Your task to perform on an android device: install app "Instagram" Image 0: 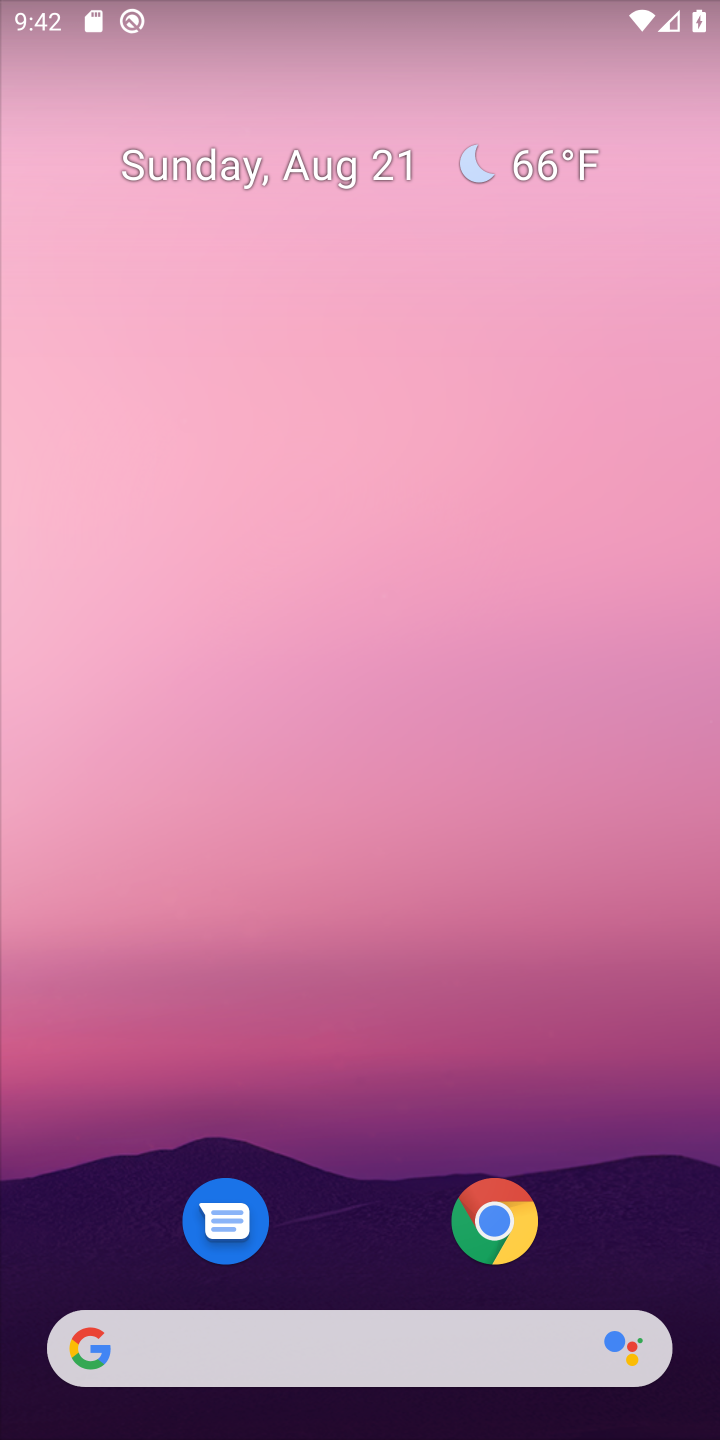
Step 0: drag from (339, 1155) to (283, 368)
Your task to perform on an android device: install app "Instagram" Image 1: 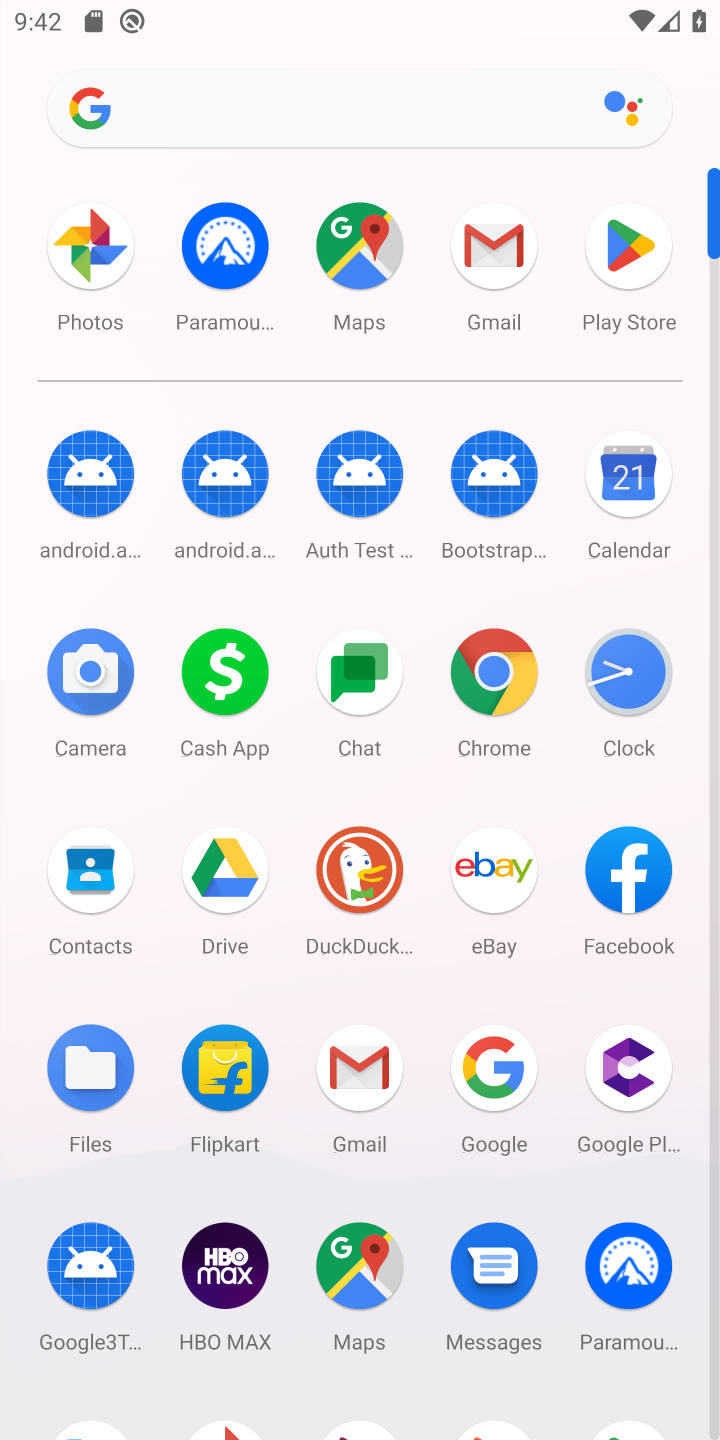
Step 1: click (609, 225)
Your task to perform on an android device: install app "Instagram" Image 2: 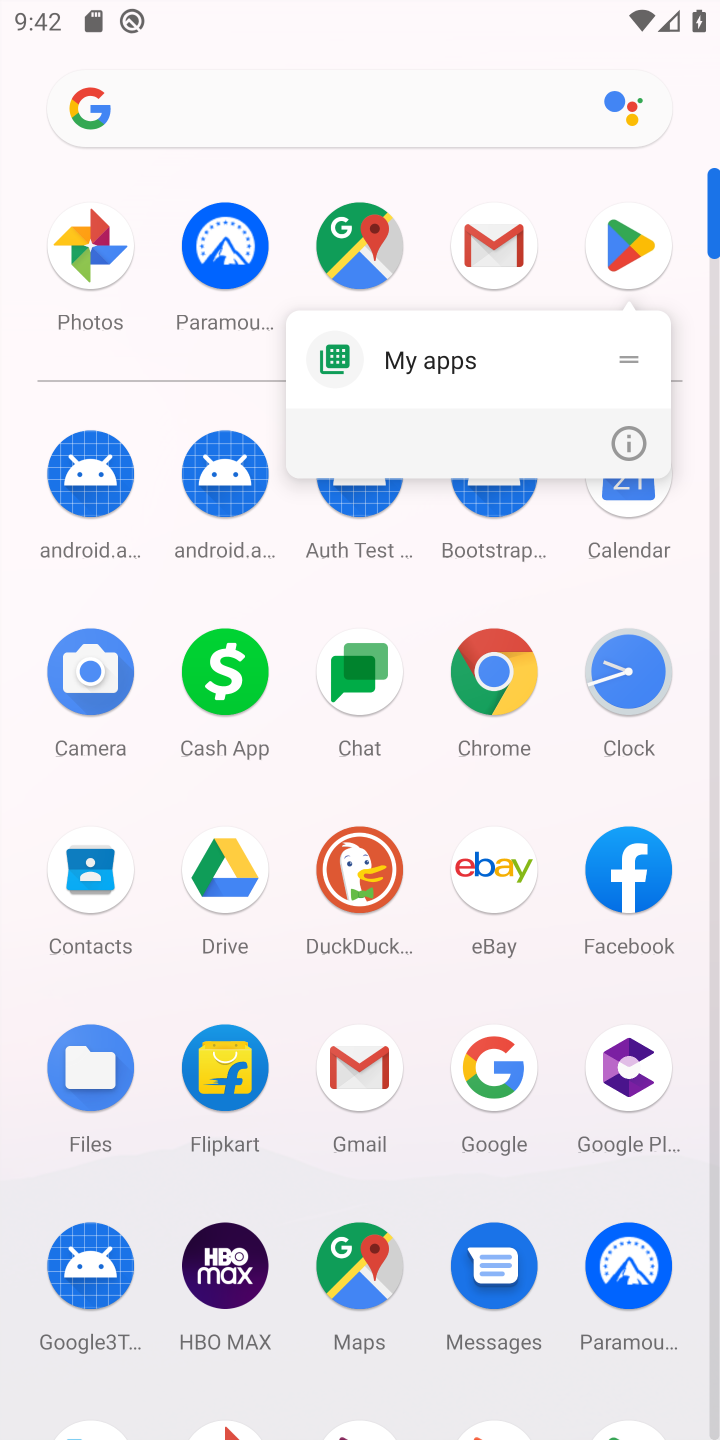
Step 2: click (609, 225)
Your task to perform on an android device: install app "Instagram" Image 3: 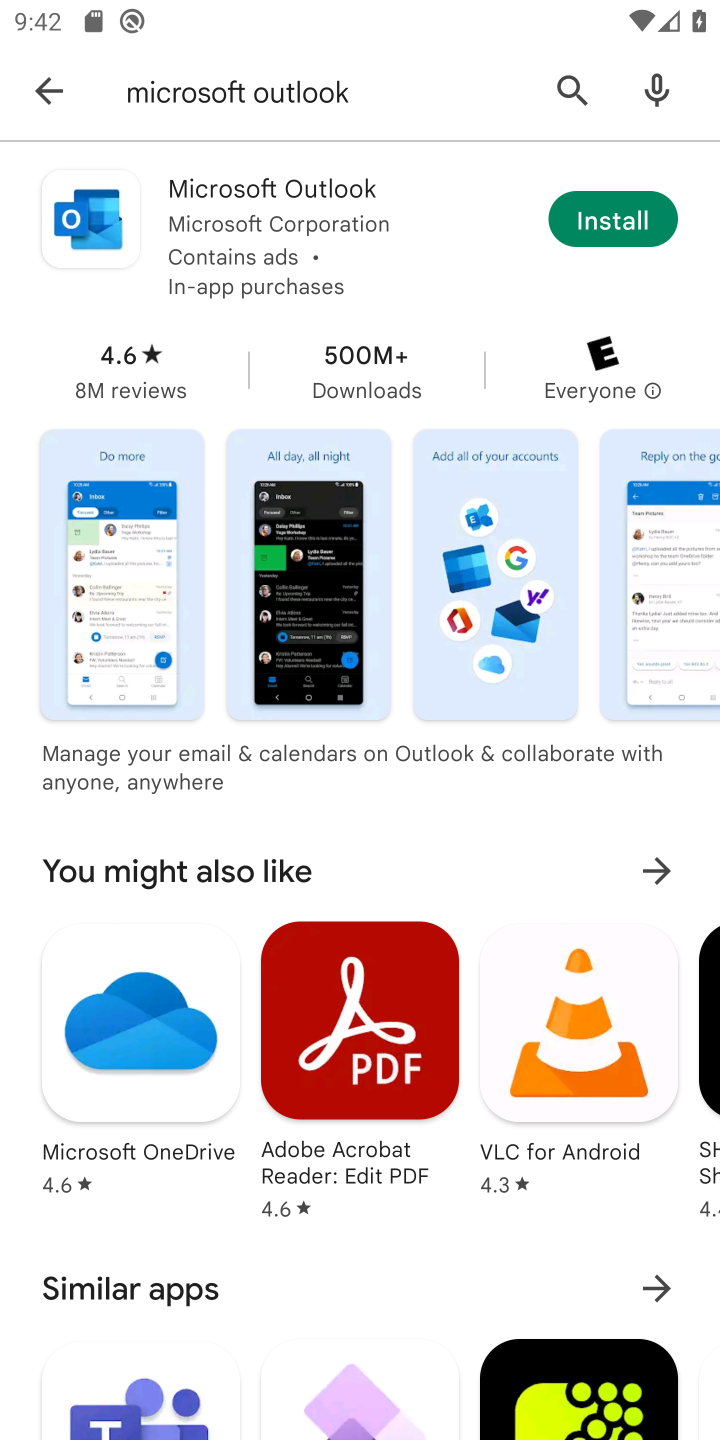
Step 3: click (562, 84)
Your task to perform on an android device: install app "Instagram" Image 4: 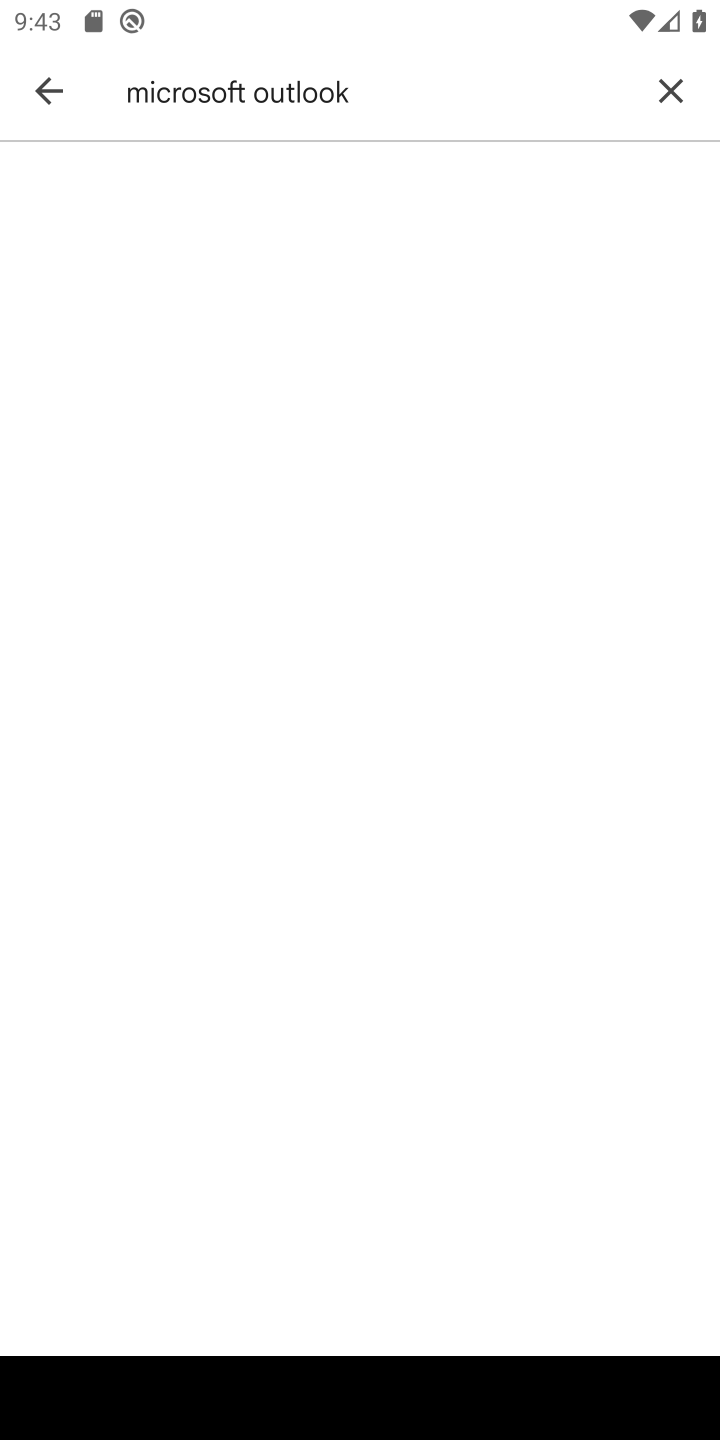
Step 4: click (660, 92)
Your task to perform on an android device: install app "Instagram" Image 5: 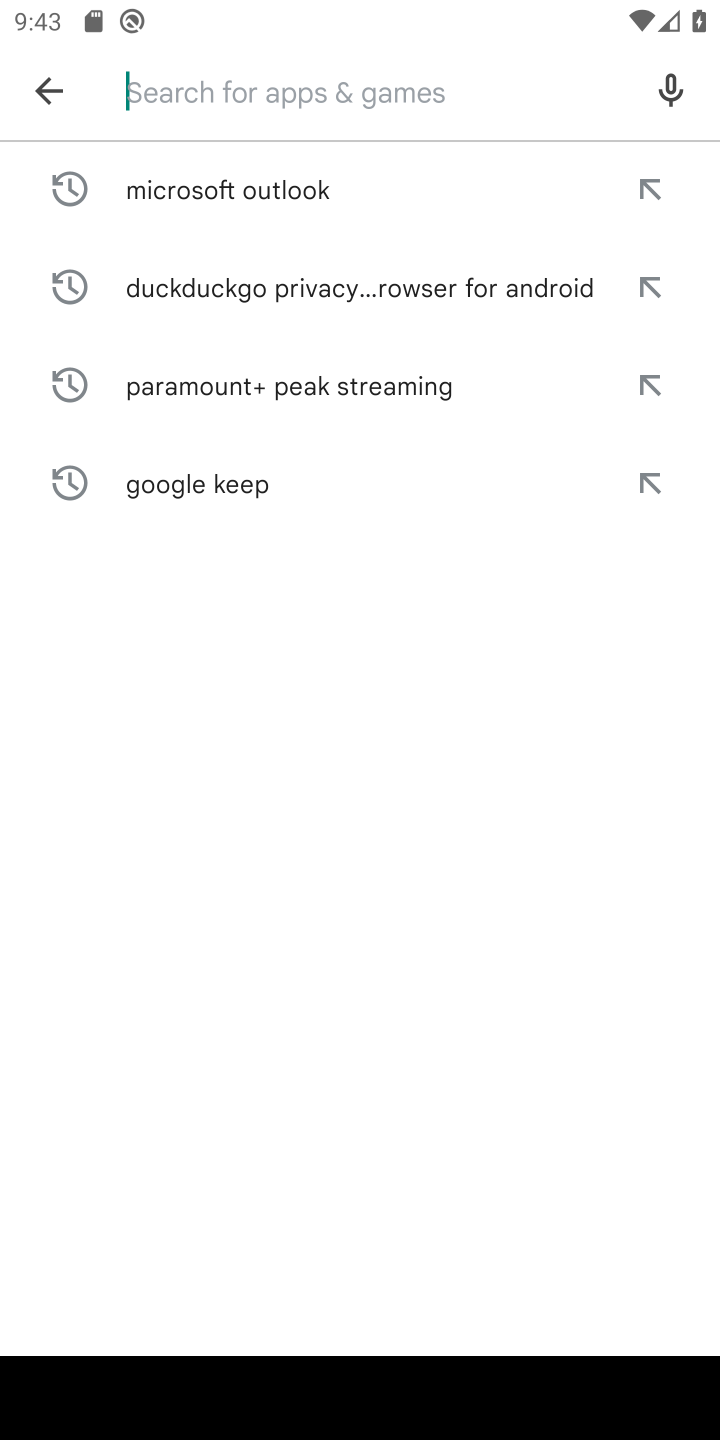
Step 5: type "Instagram"
Your task to perform on an android device: install app "Instagram" Image 6: 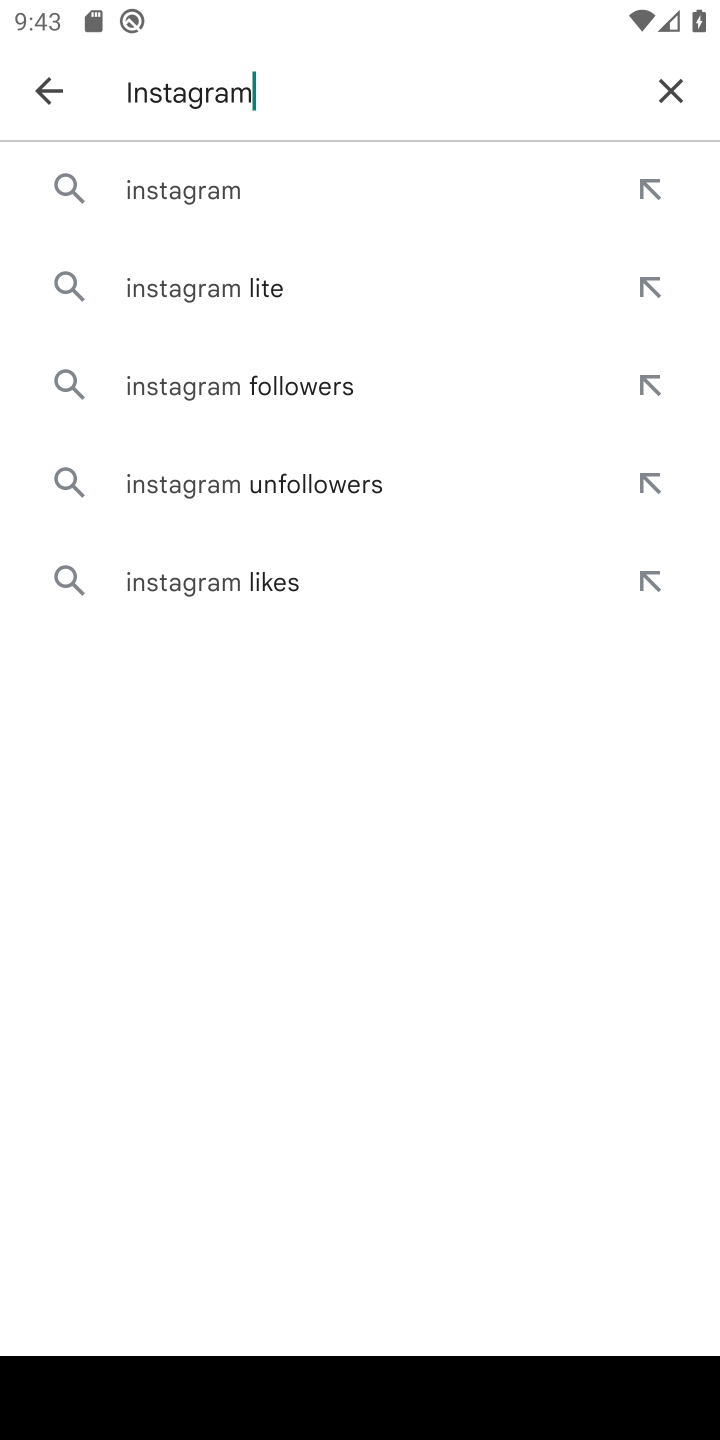
Step 6: type ""
Your task to perform on an android device: install app "Instagram" Image 7: 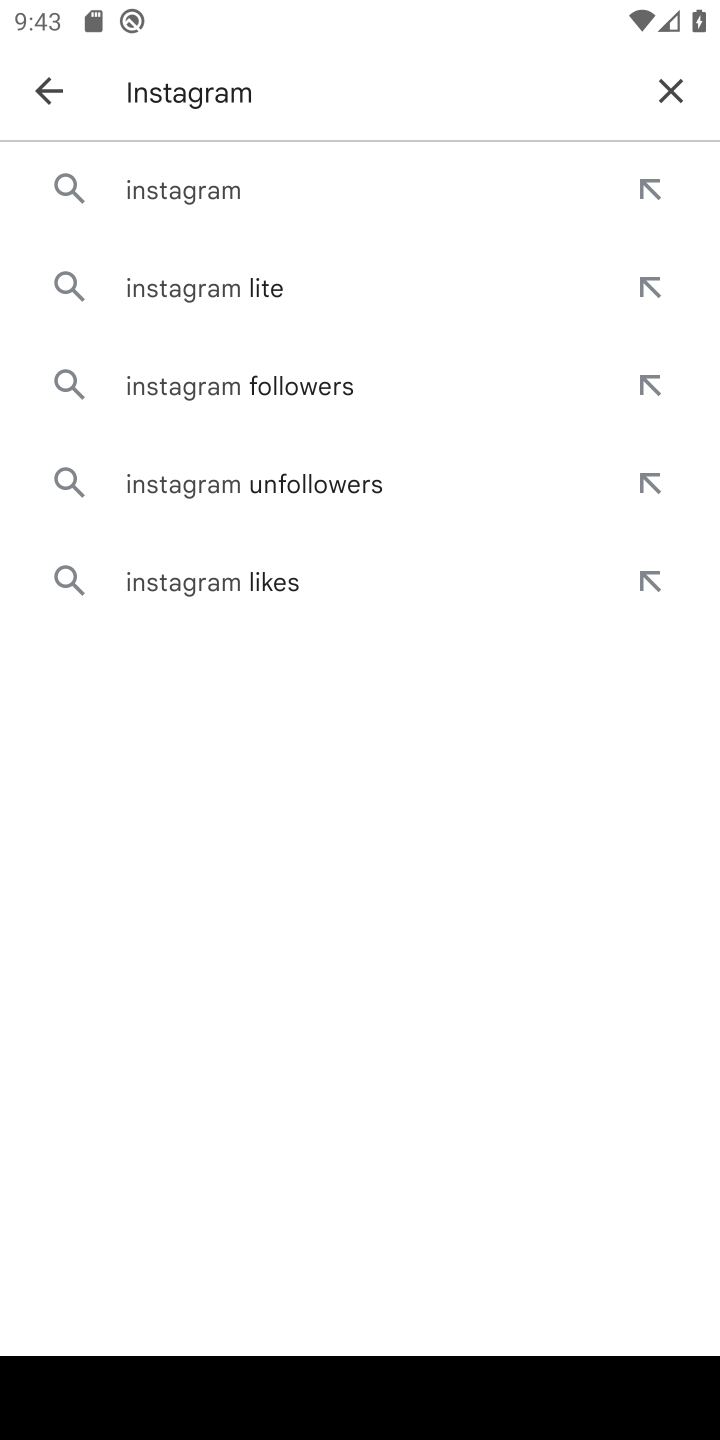
Step 7: click (172, 192)
Your task to perform on an android device: install app "Instagram" Image 8: 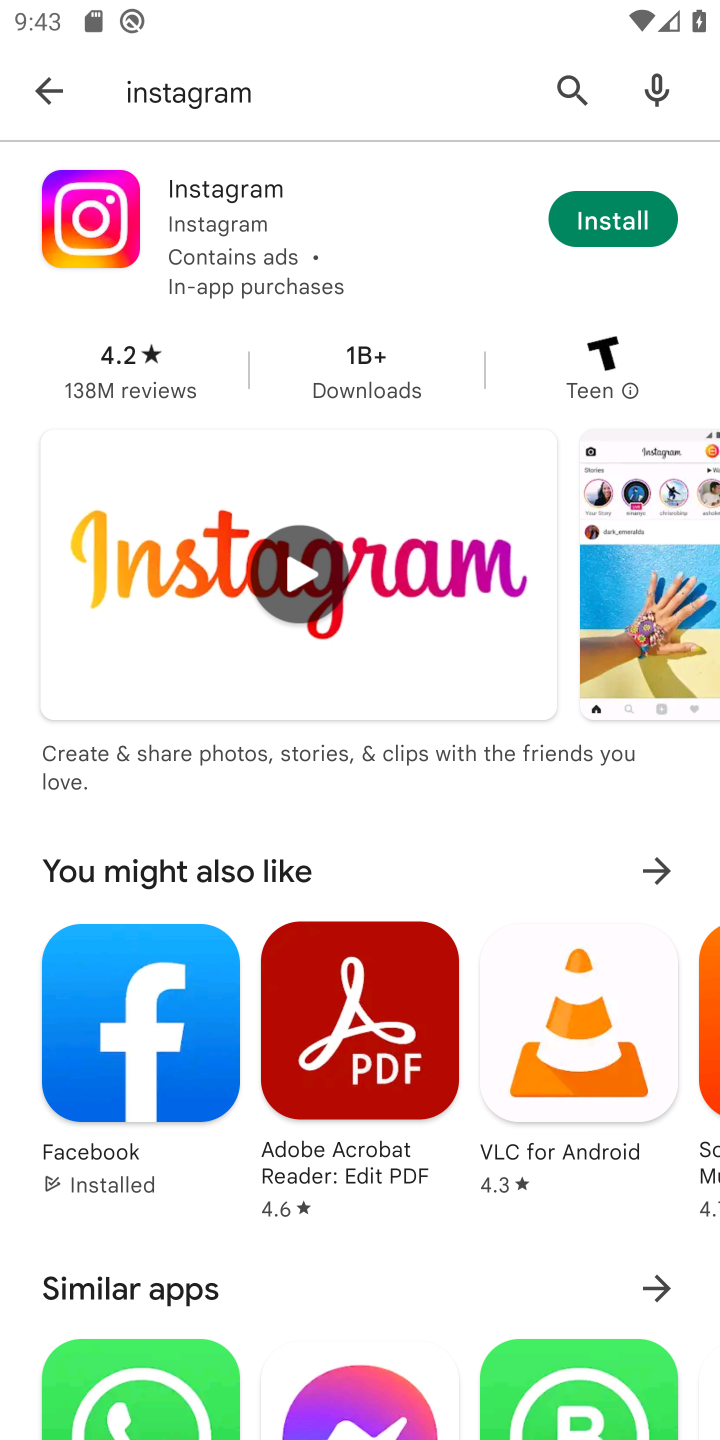
Step 8: click (631, 206)
Your task to perform on an android device: install app "Instagram" Image 9: 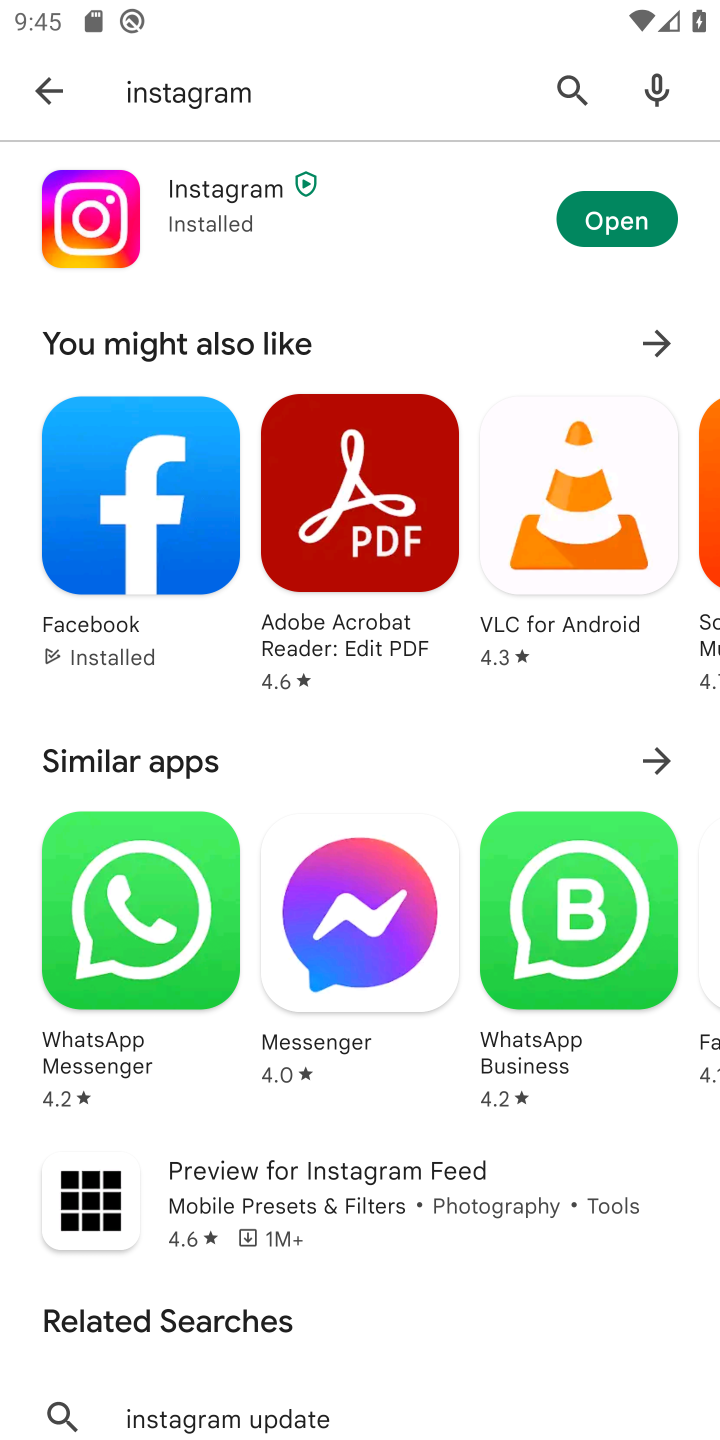
Step 9: task complete